Your task to perform on an android device: Search for seafood restaurants on Google Maps Image 0: 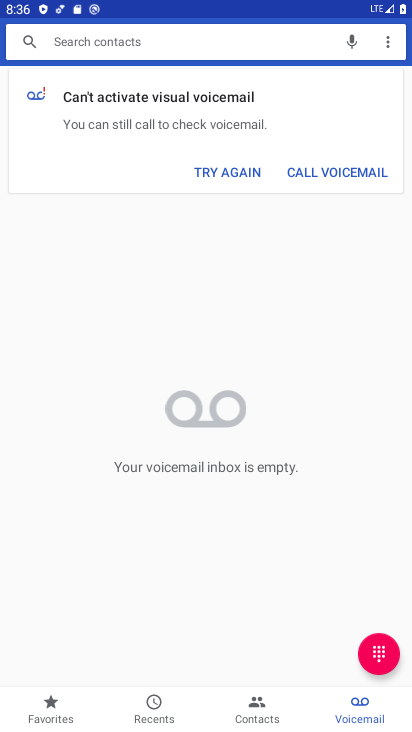
Step 0: press home button
Your task to perform on an android device: Search for seafood restaurants on Google Maps Image 1: 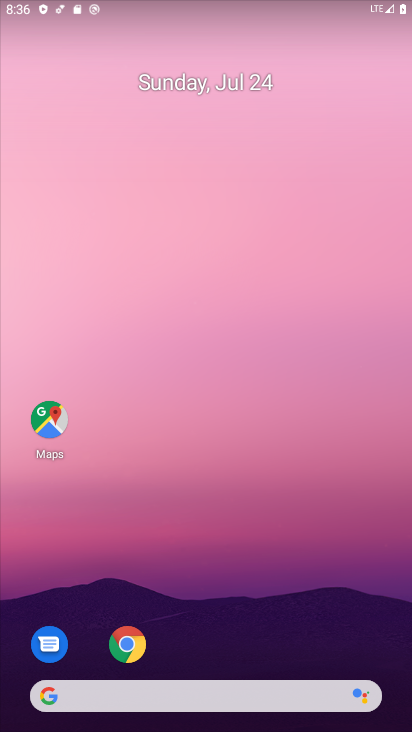
Step 1: click (41, 420)
Your task to perform on an android device: Search for seafood restaurants on Google Maps Image 2: 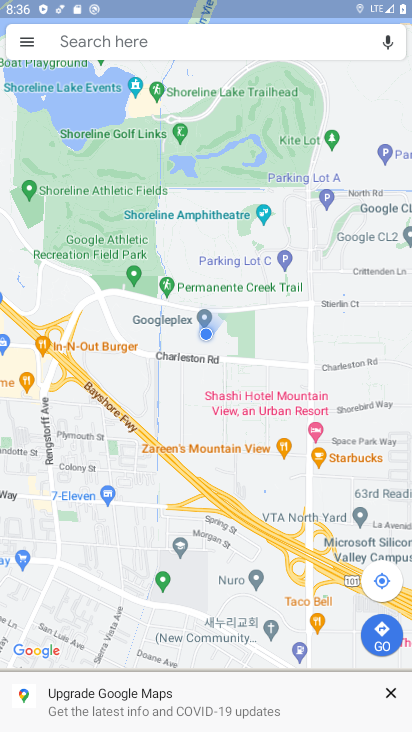
Step 2: click (154, 34)
Your task to perform on an android device: Search for seafood restaurants on Google Maps Image 3: 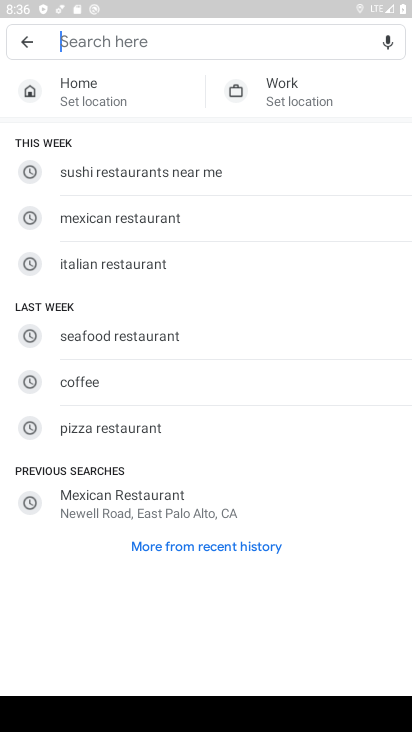
Step 3: type " seafood restaurants"
Your task to perform on an android device: Search for seafood restaurants on Google Maps Image 4: 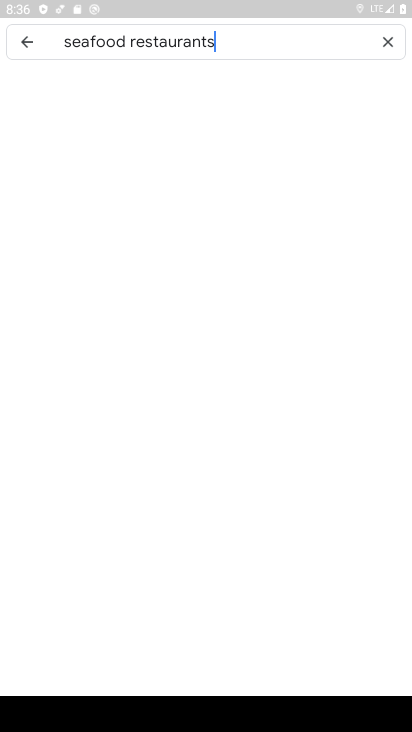
Step 4: type ""
Your task to perform on an android device: Search for seafood restaurants on Google Maps Image 5: 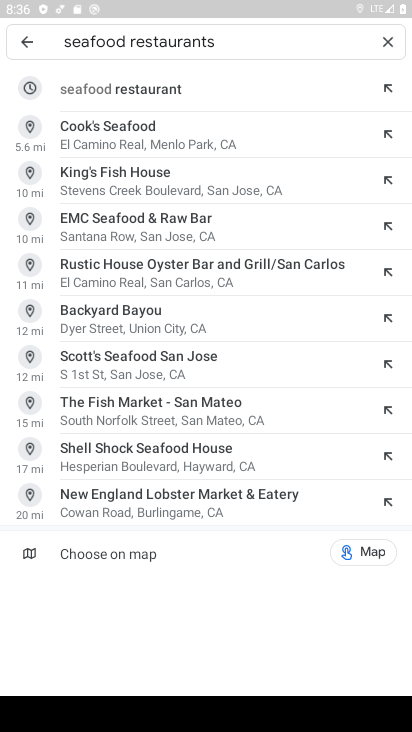
Step 5: click (127, 85)
Your task to perform on an android device: Search for seafood restaurants on Google Maps Image 6: 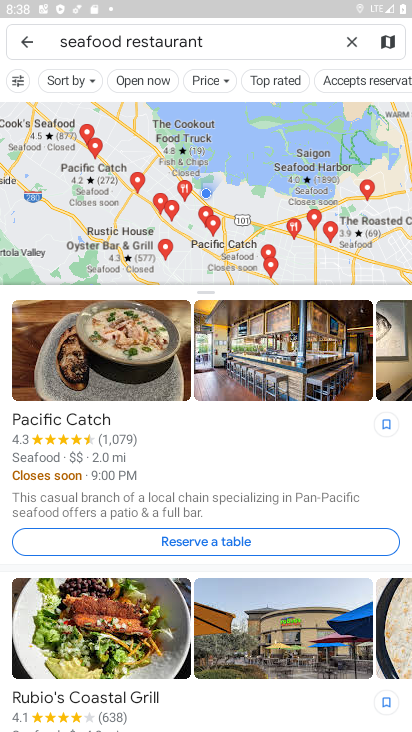
Step 6: task complete